Your task to perform on an android device: show emergency info Image 0: 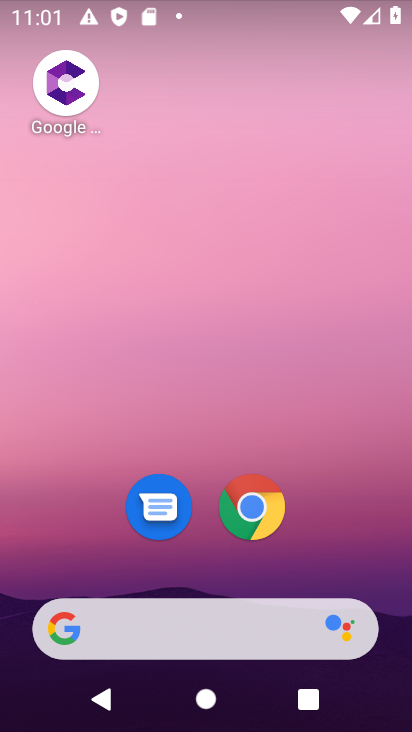
Step 0: drag from (349, 562) to (255, 53)
Your task to perform on an android device: show emergency info Image 1: 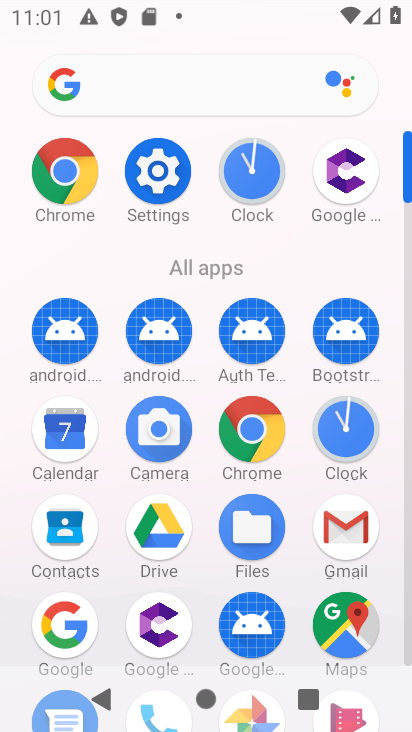
Step 1: click (150, 159)
Your task to perform on an android device: show emergency info Image 2: 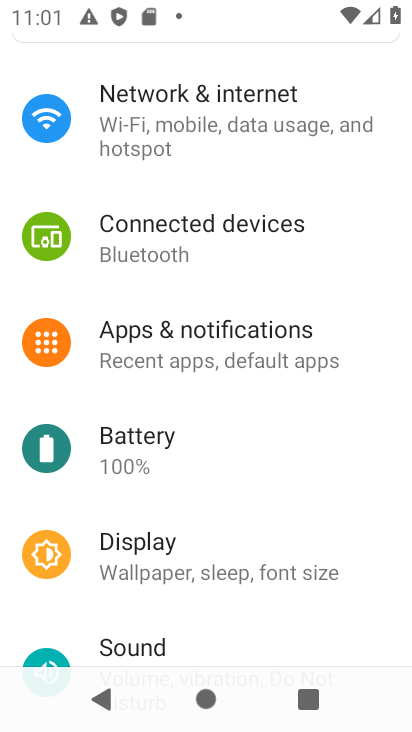
Step 2: drag from (276, 567) to (217, 0)
Your task to perform on an android device: show emergency info Image 3: 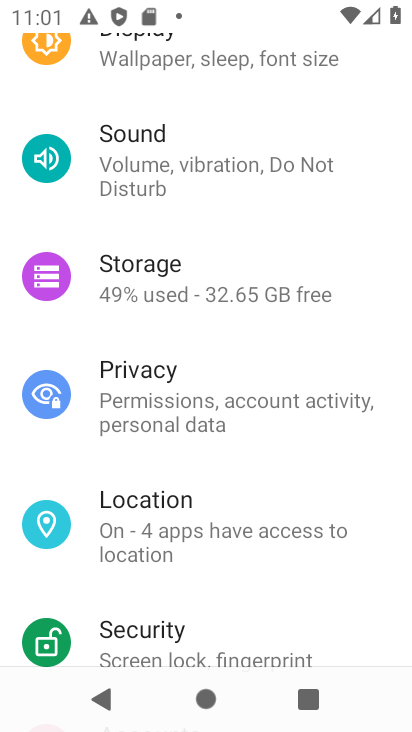
Step 3: drag from (328, 584) to (204, 77)
Your task to perform on an android device: show emergency info Image 4: 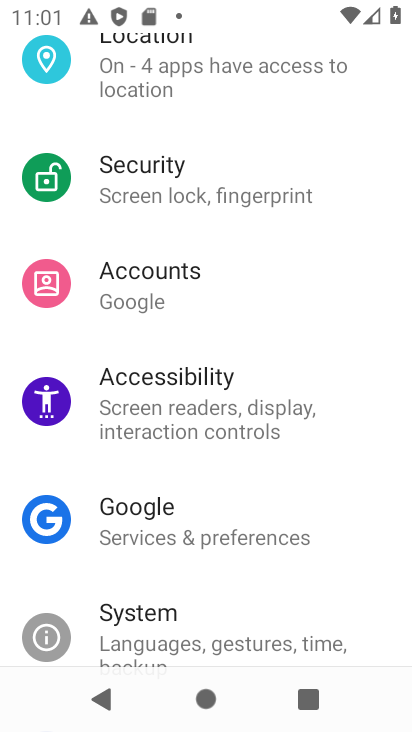
Step 4: drag from (262, 538) to (199, 164)
Your task to perform on an android device: show emergency info Image 5: 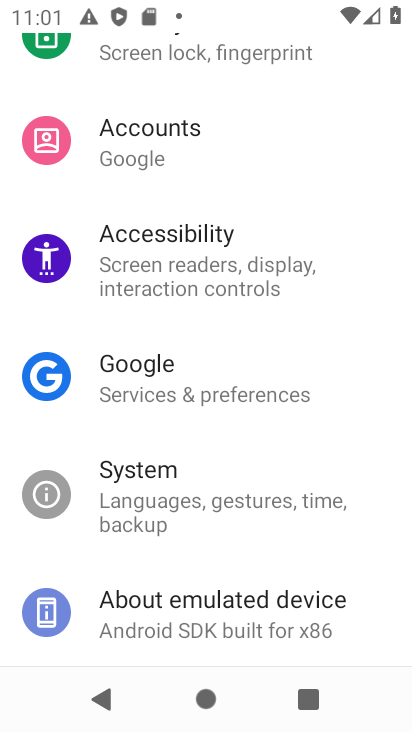
Step 5: click (234, 611)
Your task to perform on an android device: show emergency info Image 6: 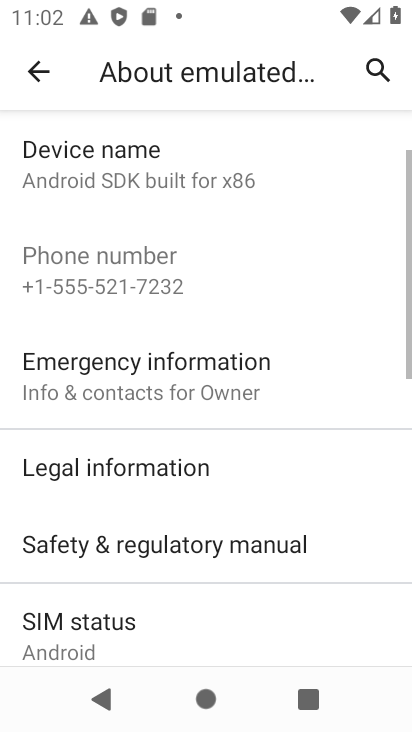
Step 6: click (126, 394)
Your task to perform on an android device: show emergency info Image 7: 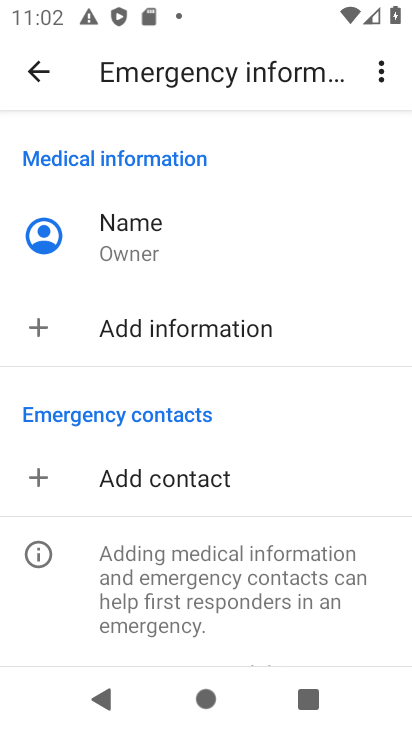
Step 7: task complete